Your task to perform on an android device: See recent photos Image 0: 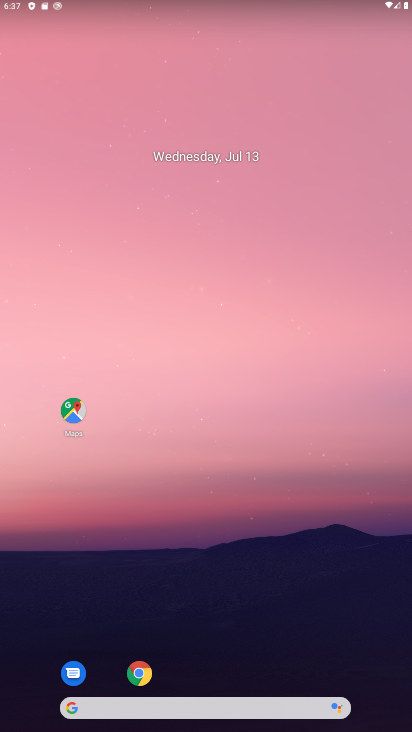
Step 0: drag from (259, 511) to (247, 0)
Your task to perform on an android device: See recent photos Image 1: 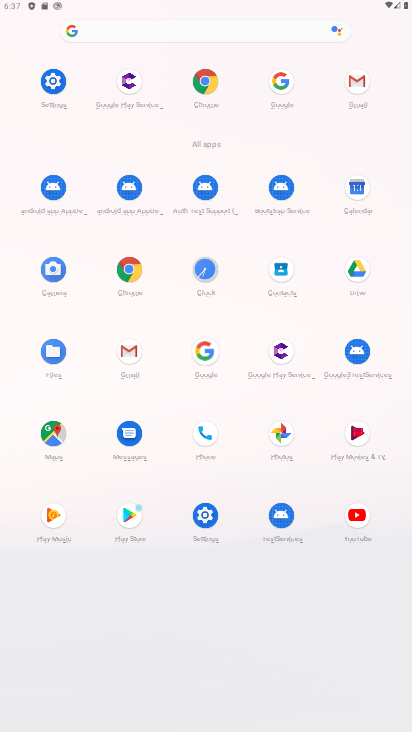
Step 1: click (278, 430)
Your task to perform on an android device: See recent photos Image 2: 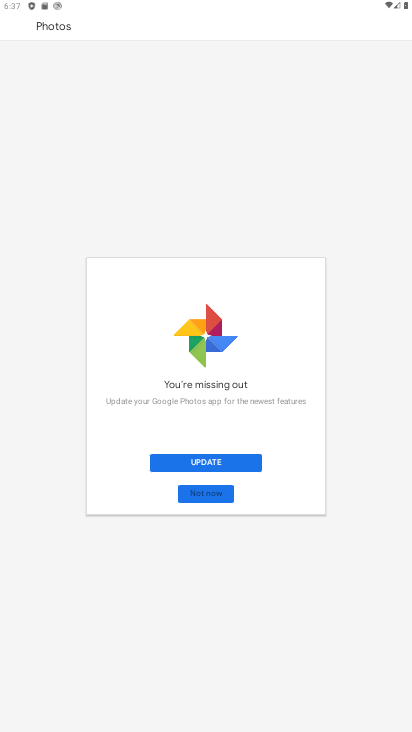
Step 2: click (227, 469)
Your task to perform on an android device: See recent photos Image 3: 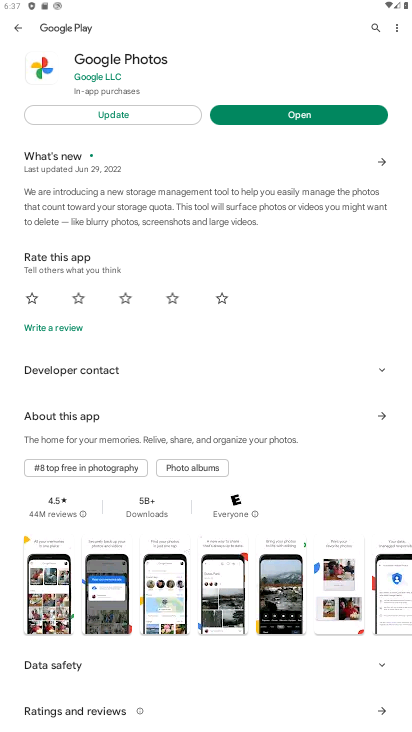
Step 3: click (145, 110)
Your task to perform on an android device: See recent photos Image 4: 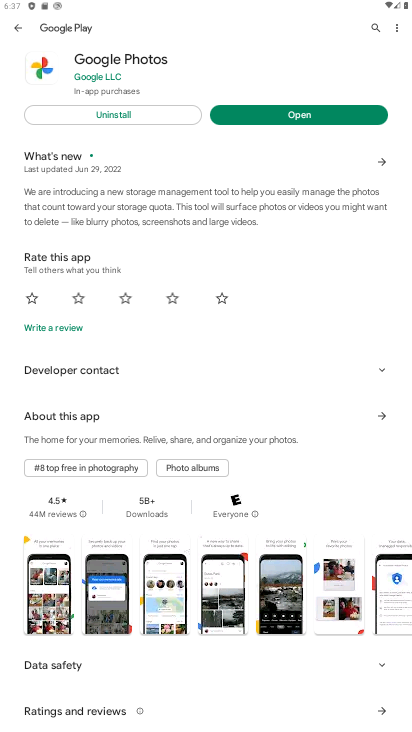
Step 4: click (306, 107)
Your task to perform on an android device: See recent photos Image 5: 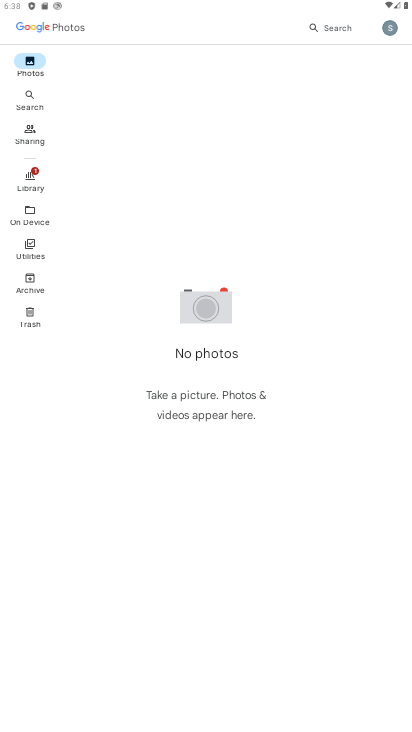
Step 5: task complete